Your task to perform on an android device: Go to CNN.com Image 0: 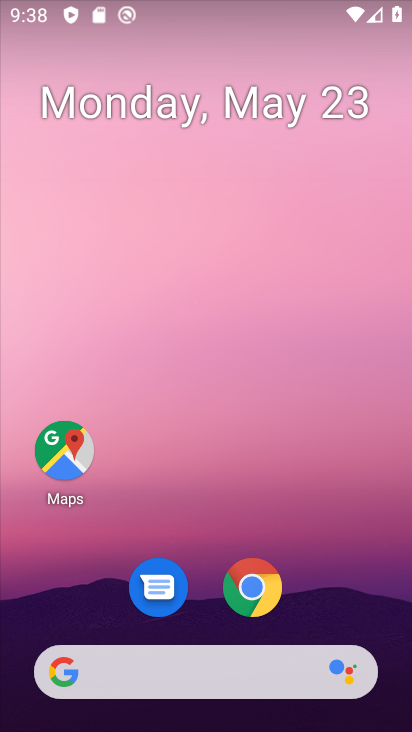
Step 0: click (261, 600)
Your task to perform on an android device: Go to CNN.com Image 1: 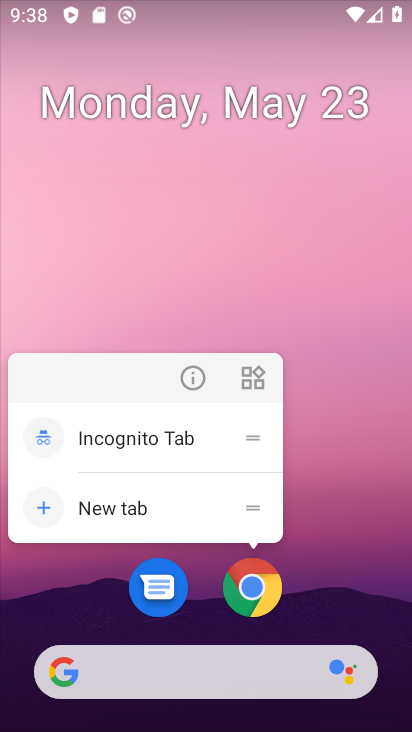
Step 1: click (268, 581)
Your task to perform on an android device: Go to CNN.com Image 2: 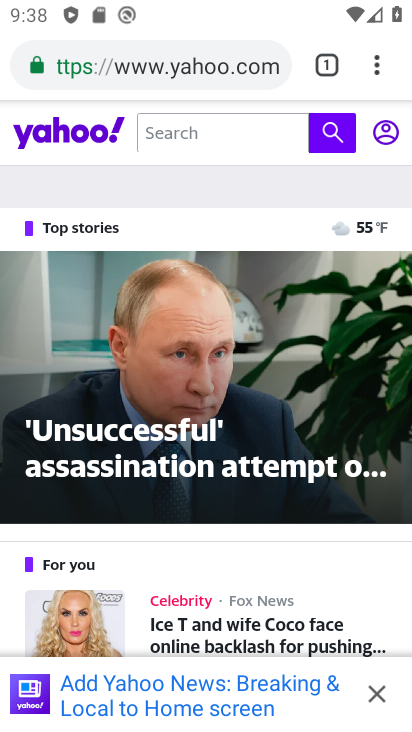
Step 2: click (257, 66)
Your task to perform on an android device: Go to CNN.com Image 3: 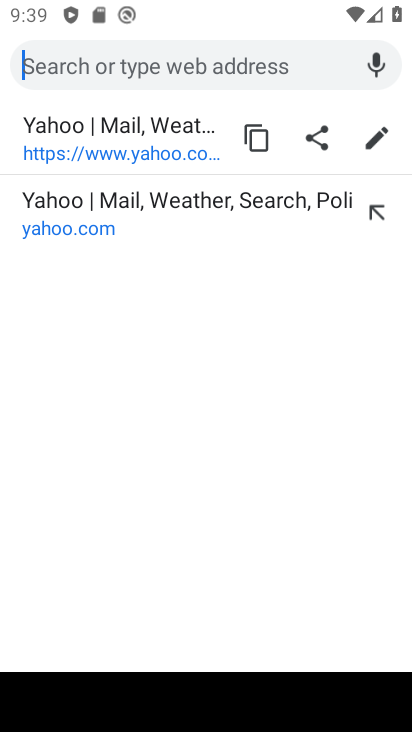
Step 3: type "cnn"
Your task to perform on an android device: Go to CNN.com Image 4: 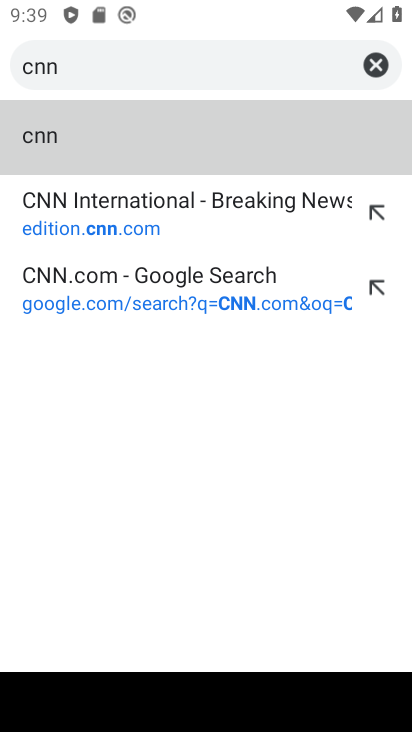
Step 4: click (167, 212)
Your task to perform on an android device: Go to CNN.com Image 5: 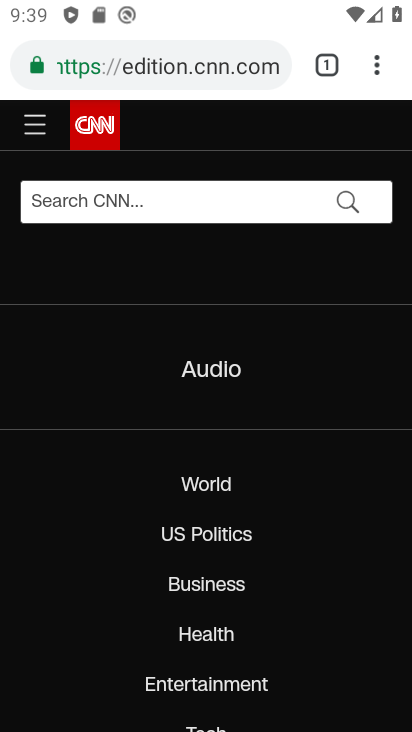
Step 5: task complete